Your task to perform on an android device: turn off data saver in the chrome app Image 0: 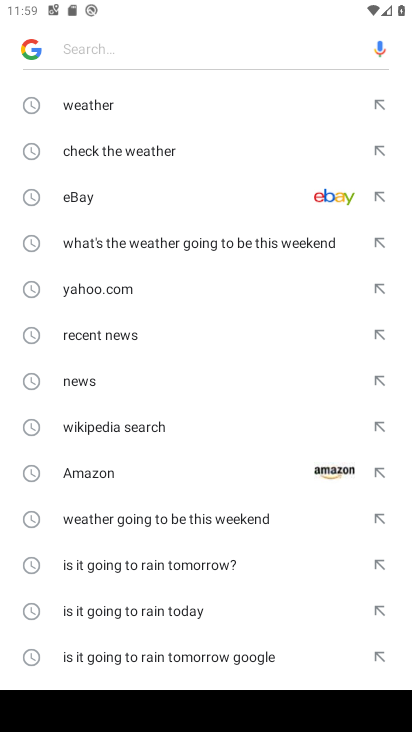
Step 0: press home button
Your task to perform on an android device: turn off data saver in the chrome app Image 1: 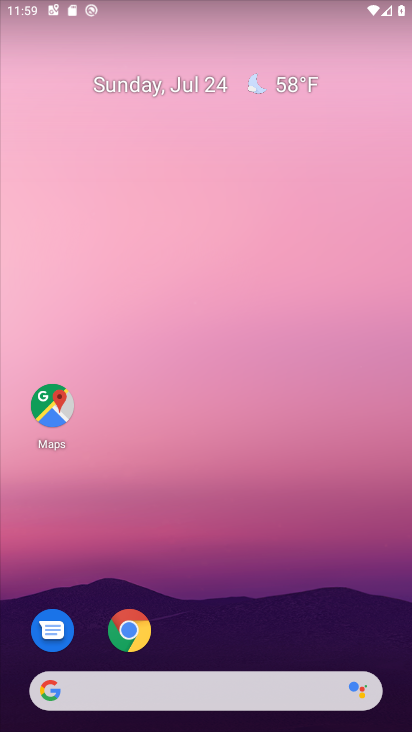
Step 1: click (136, 635)
Your task to perform on an android device: turn off data saver in the chrome app Image 2: 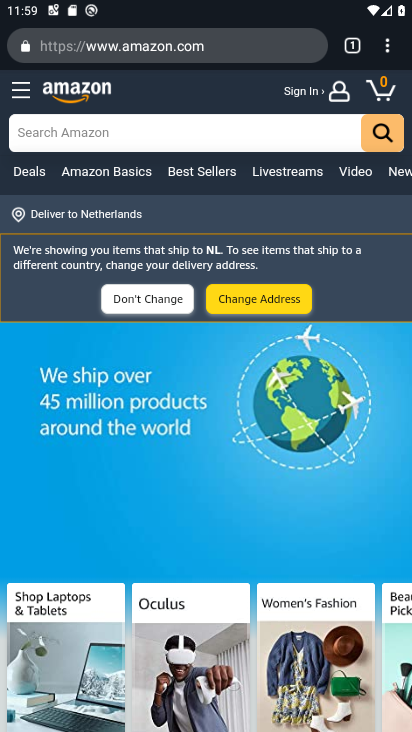
Step 2: click (388, 42)
Your task to perform on an android device: turn off data saver in the chrome app Image 3: 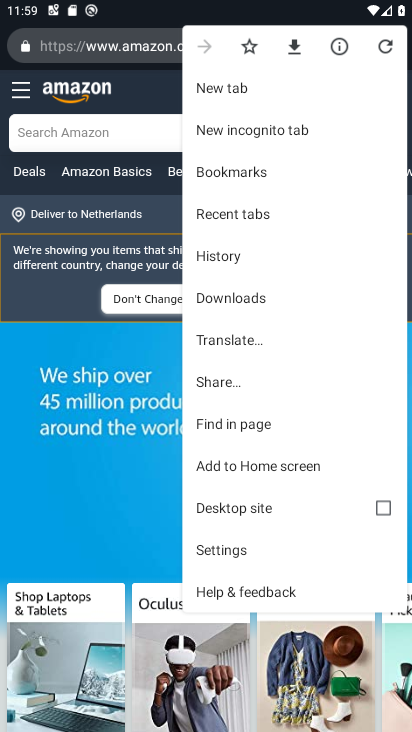
Step 3: click (220, 552)
Your task to perform on an android device: turn off data saver in the chrome app Image 4: 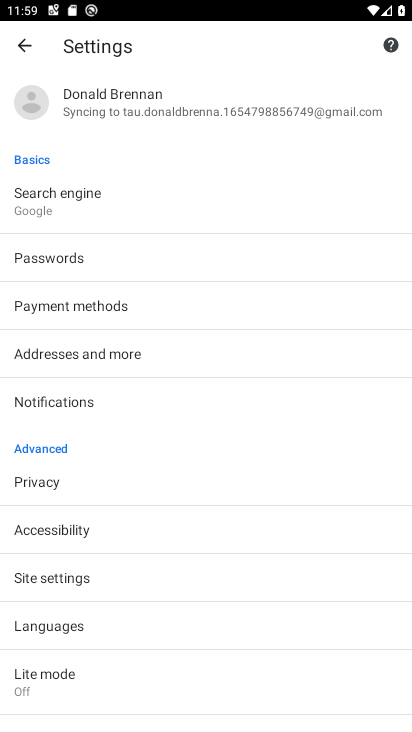
Step 4: click (45, 692)
Your task to perform on an android device: turn off data saver in the chrome app Image 5: 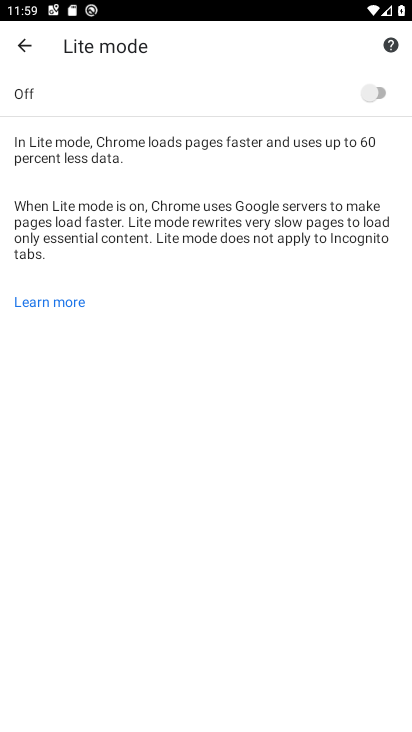
Step 5: task complete